Your task to perform on an android device: see sites visited before in the chrome app Image 0: 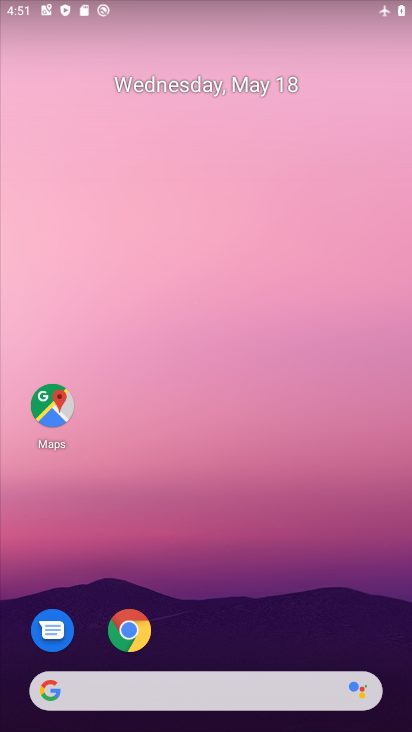
Step 0: click (130, 630)
Your task to perform on an android device: see sites visited before in the chrome app Image 1: 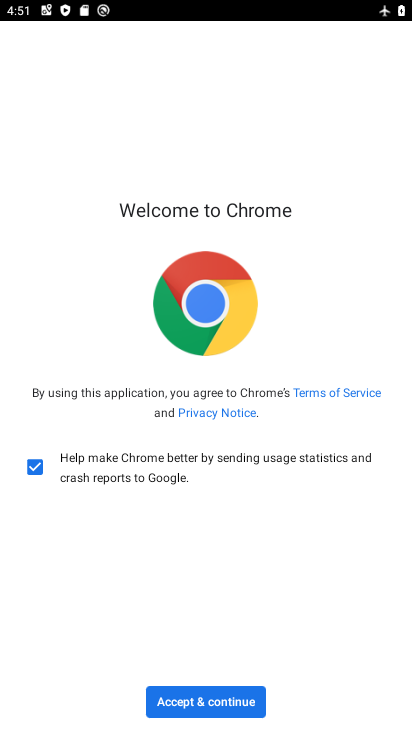
Step 1: click (194, 700)
Your task to perform on an android device: see sites visited before in the chrome app Image 2: 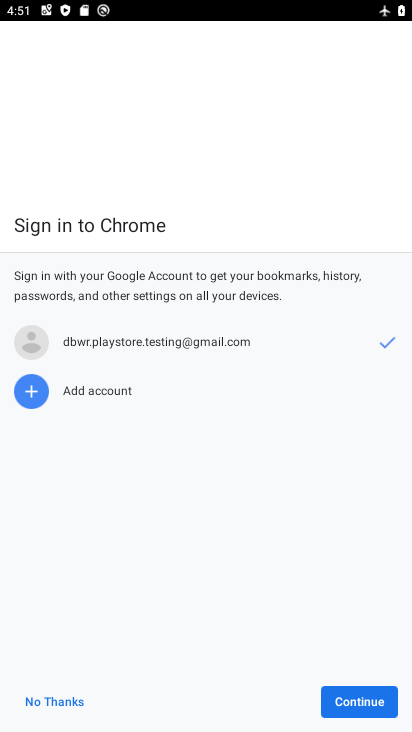
Step 2: click (358, 699)
Your task to perform on an android device: see sites visited before in the chrome app Image 3: 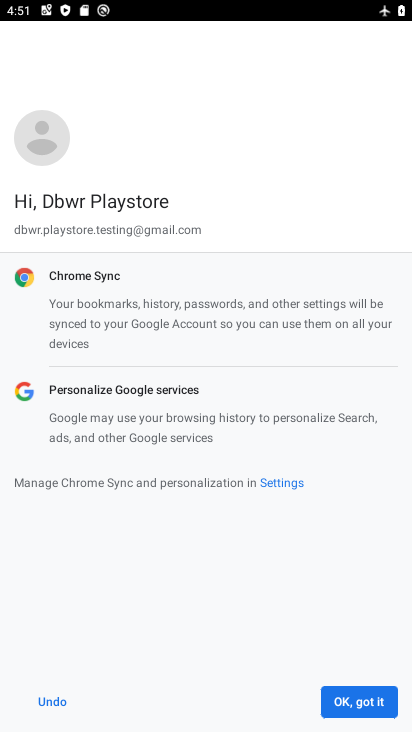
Step 3: click (358, 699)
Your task to perform on an android device: see sites visited before in the chrome app Image 4: 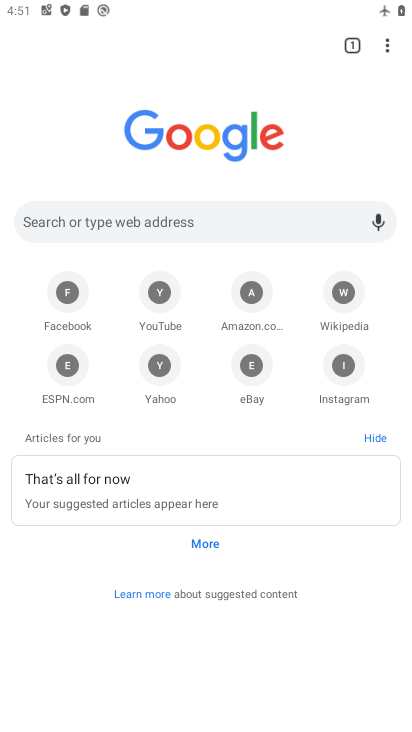
Step 4: click (387, 43)
Your task to perform on an android device: see sites visited before in the chrome app Image 5: 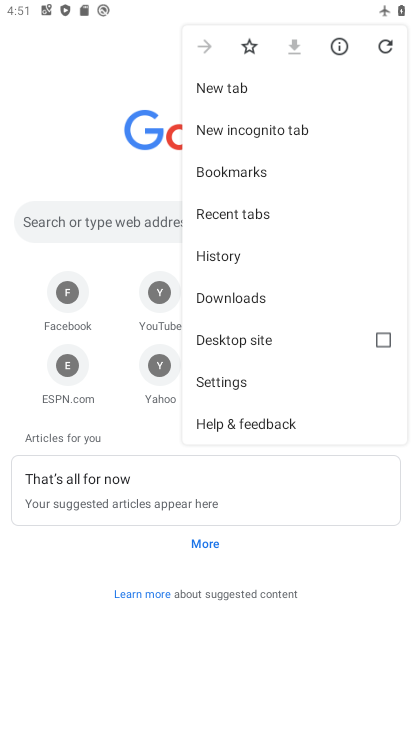
Step 5: click (234, 256)
Your task to perform on an android device: see sites visited before in the chrome app Image 6: 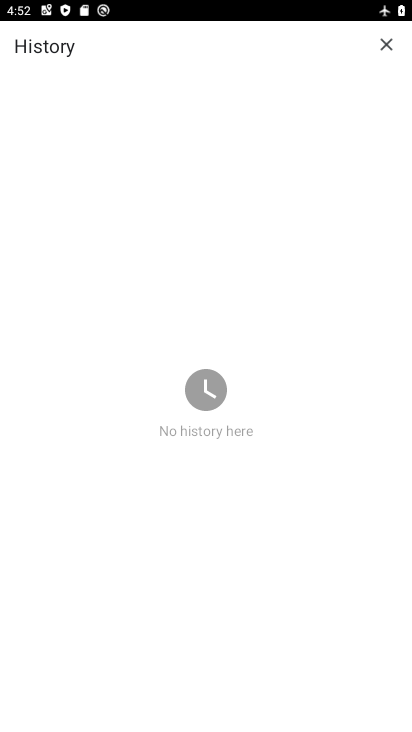
Step 6: task complete